Your task to perform on an android device: change notifications settings Image 0: 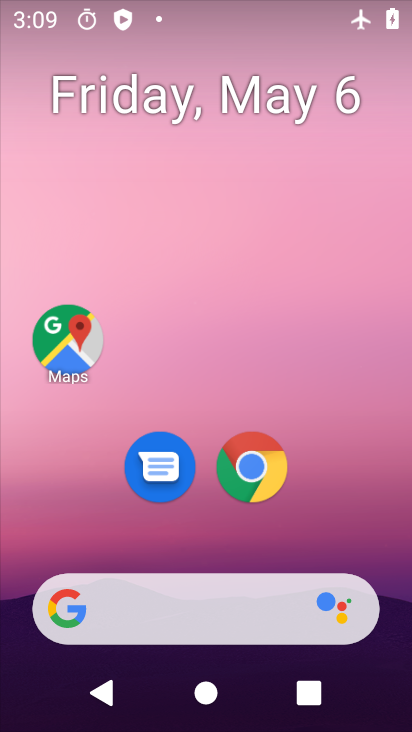
Step 0: drag from (383, 492) to (337, 283)
Your task to perform on an android device: change notifications settings Image 1: 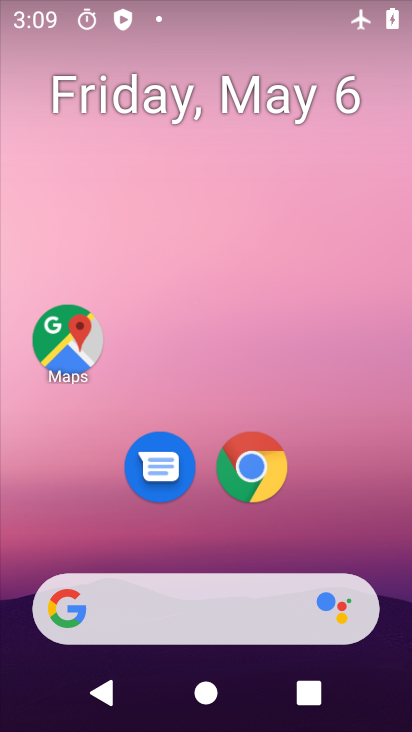
Step 1: drag from (383, 655) to (397, 191)
Your task to perform on an android device: change notifications settings Image 2: 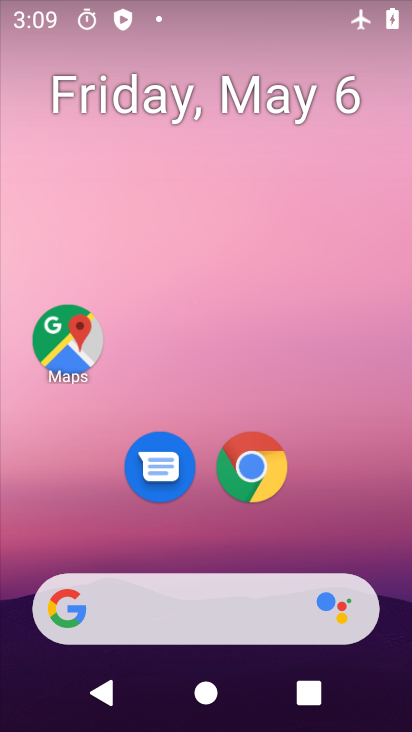
Step 2: drag from (395, 691) to (393, 241)
Your task to perform on an android device: change notifications settings Image 3: 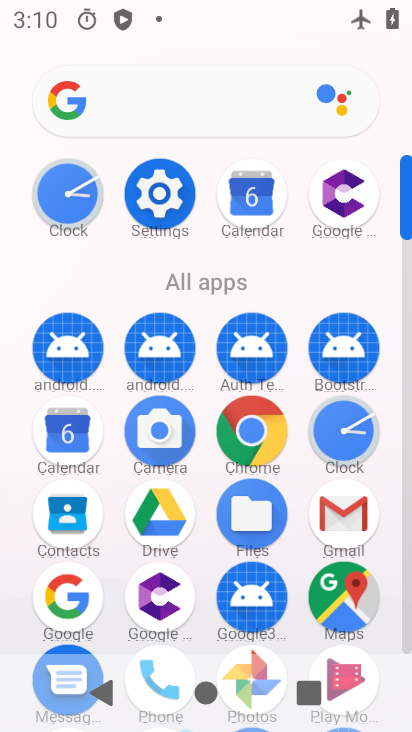
Step 3: click (170, 197)
Your task to perform on an android device: change notifications settings Image 4: 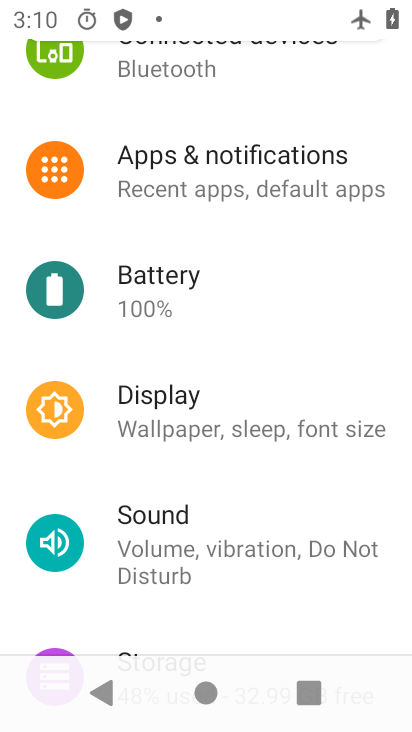
Step 4: click (195, 173)
Your task to perform on an android device: change notifications settings Image 5: 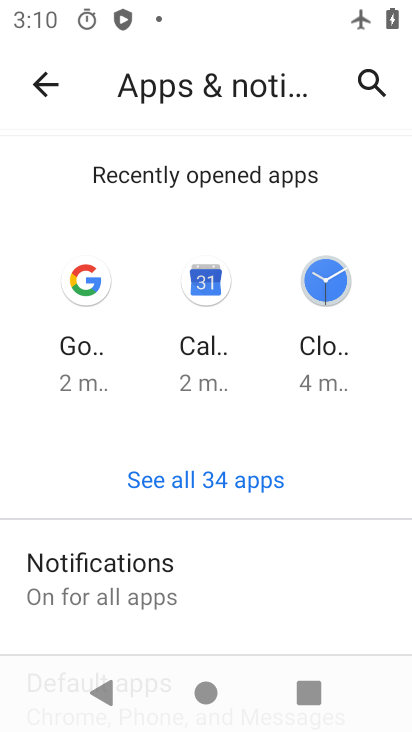
Step 5: click (117, 554)
Your task to perform on an android device: change notifications settings Image 6: 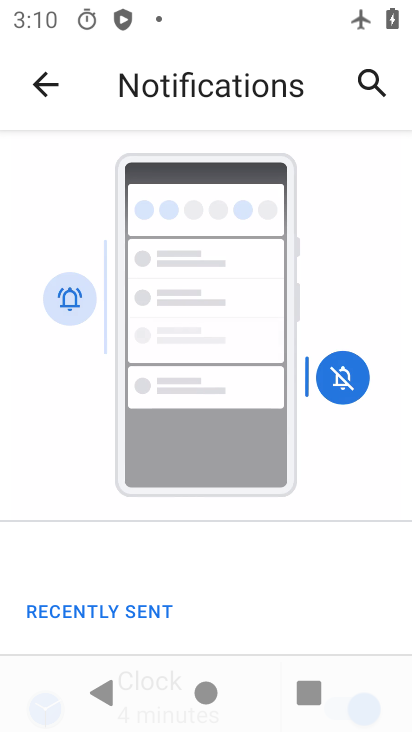
Step 6: drag from (281, 624) to (238, 189)
Your task to perform on an android device: change notifications settings Image 7: 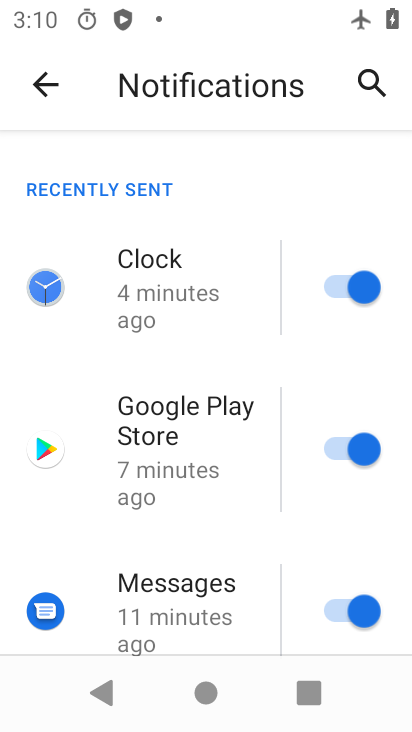
Step 7: drag from (260, 551) to (241, 185)
Your task to perform on an android device: change notifications settings Image 8: 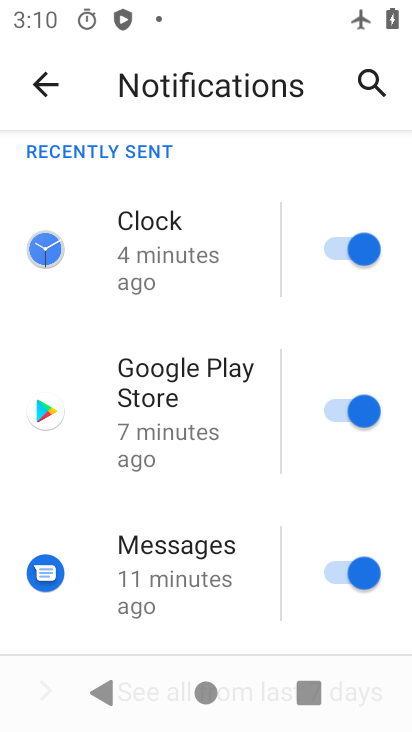
Step 8: click (342, 240)
Your task to perform on an android device: change notifications settings Image 9: 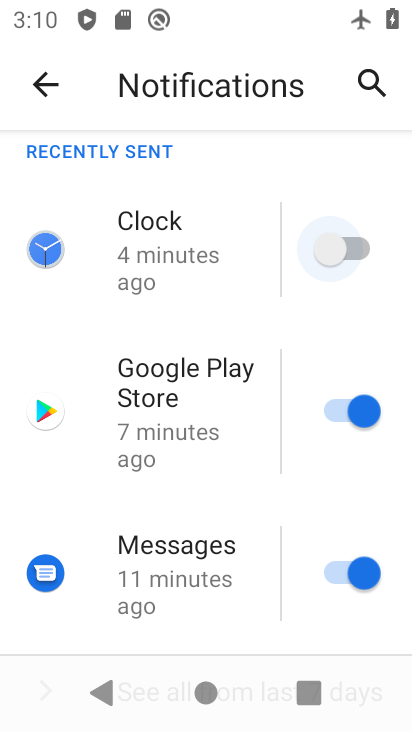
Step 9: click (332, 415)
Your task to perform on an android device: change notifications settings Image 10: 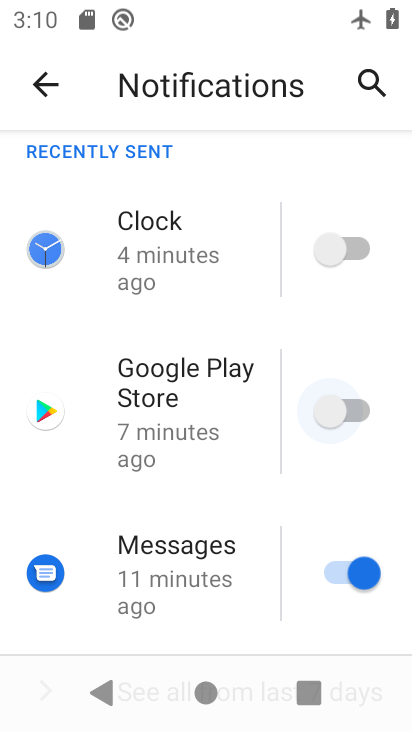
Step 10: click (331, 578)
Your task to perform on an android device: change notifications settings Image 11: 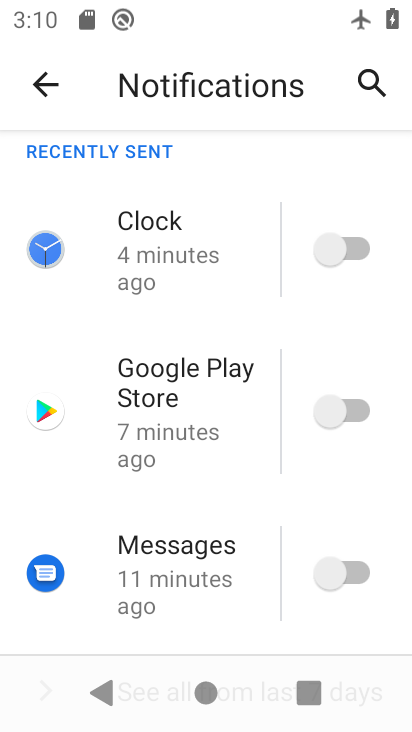
Step 11: task complete